Your task to perform on an android device: What's the weather? Image 0: 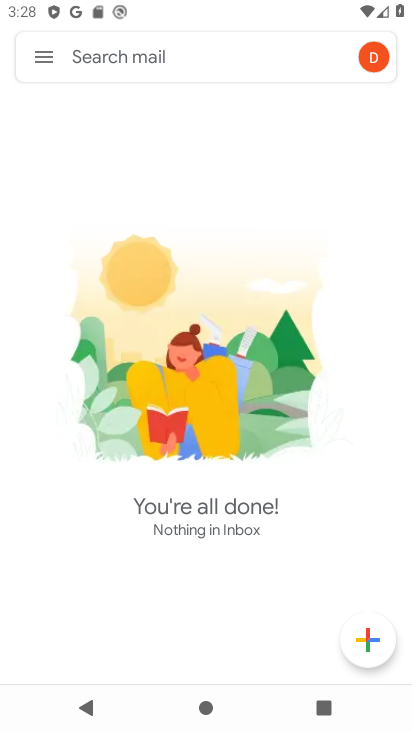
Step 0: press home button
Your task to perform on an android device: What's the weather? Image 1: 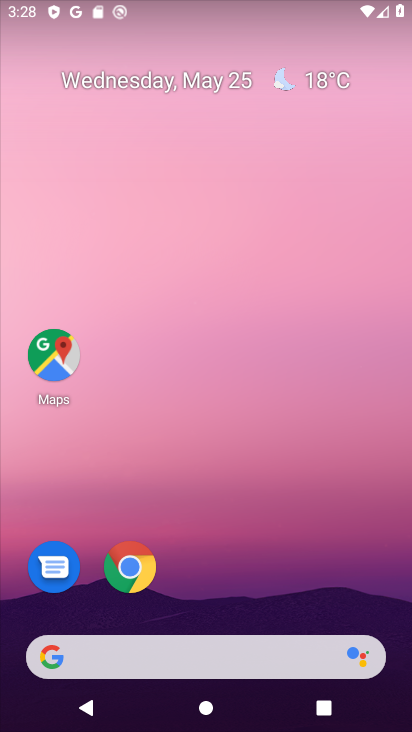
Step 1: click (312, 650)
Your task to perform on an android device: What's the weather? Image 2: 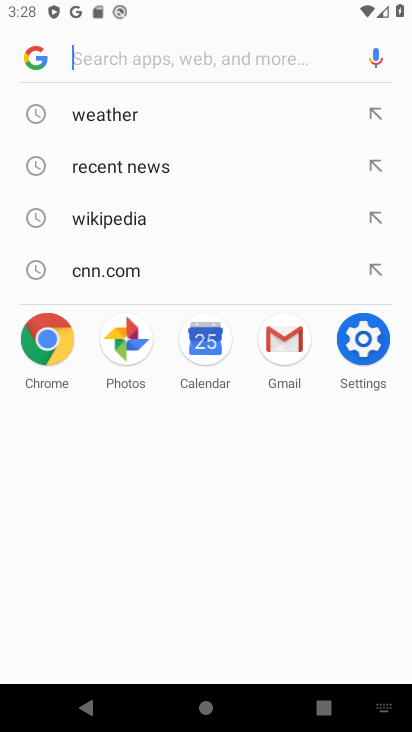
Step 2: click (119, 122)
Your task to perform on an android device: What's the weather? Image 3: 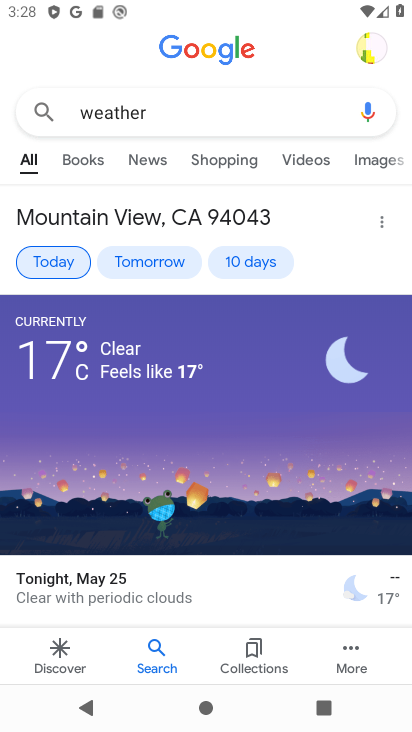
Step 3: task complete